Your task to perform on an android device: Go to Amazon Image 0: 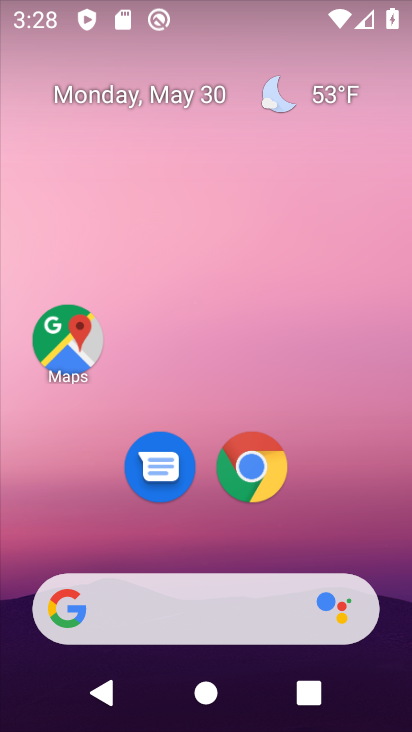
Step 0: click (249, 476)
Your task to perform on an android device: Go to Amazon Image 1: 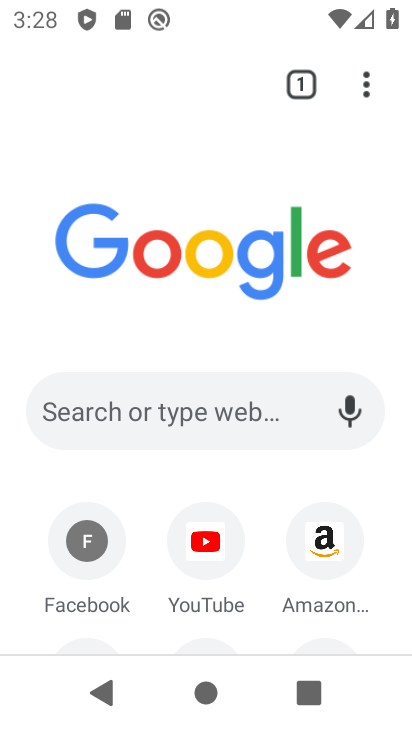
Step 1: click (306, 557)
Your task to perform on an android device: Go to Amazon Image 2: 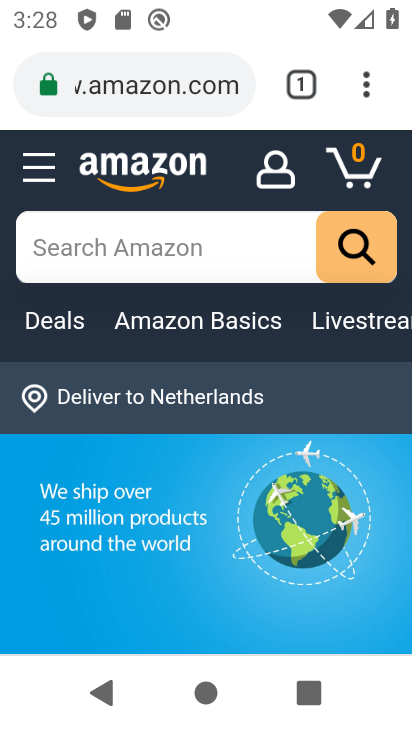
Step 2: task complete